Your task to perform on an android device: Search for the best rated headphones on amazon.com Image 0: 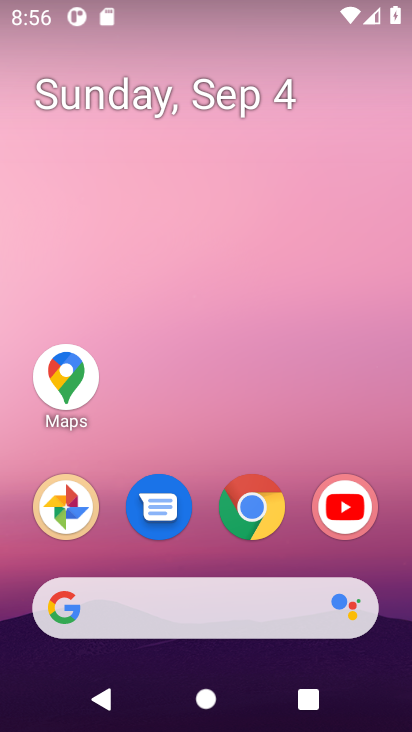
Step 0: click (252, 508)
Your task to perform on an android device: Search for the best rated headphones on amazon.com Image 1: 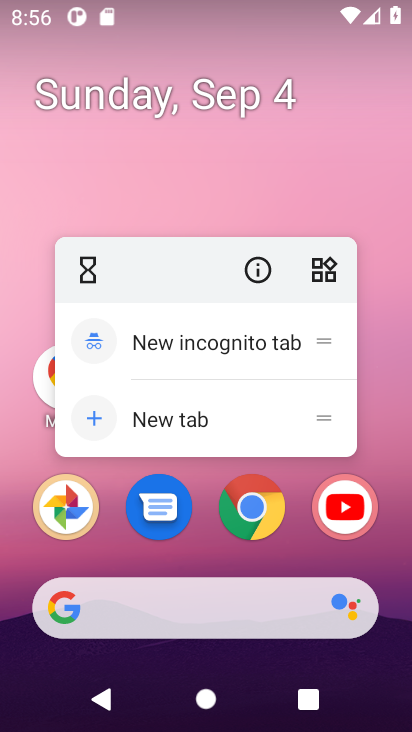
Step 1: click (248, 512)
Your task to perform on an android device: Search for the best rated headphones on amazon.com Image 2: 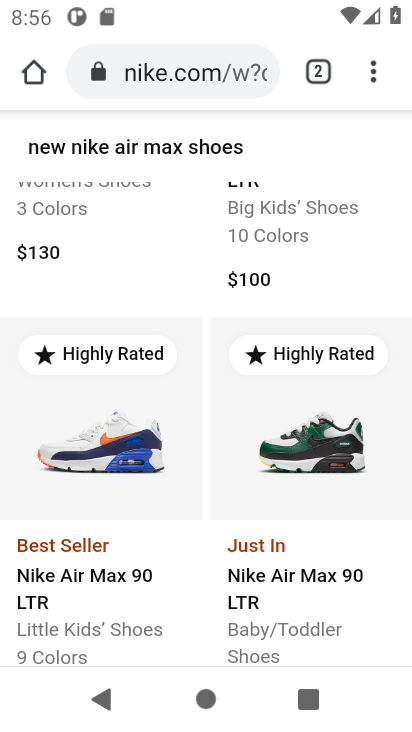
Step 2: click (194, 55)
Your task to perform on an android device: Search for the best rated headphones on amazon.com Image 3: 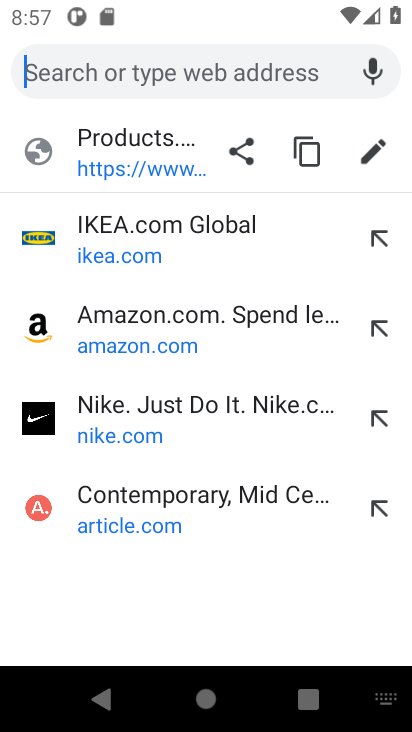
Step 3: type " amazon.com"
Your task to perform on an android device: Search for the best rated headphones on amazon.com Image 4: 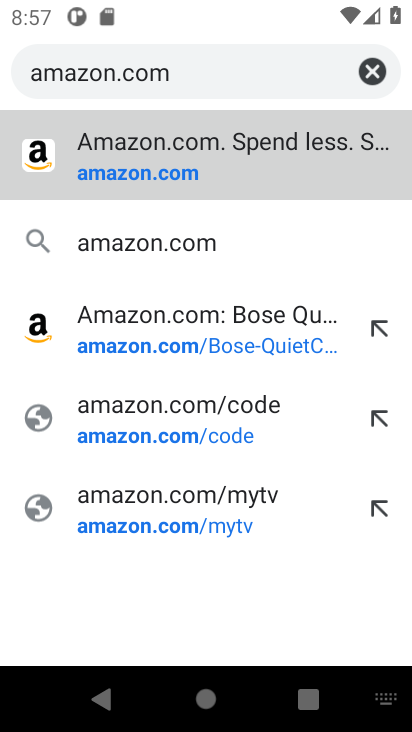
Step 4: click (114, 147)
Your task to perform on an android device: Search for the best rated headphones on amazon.com Image 5: 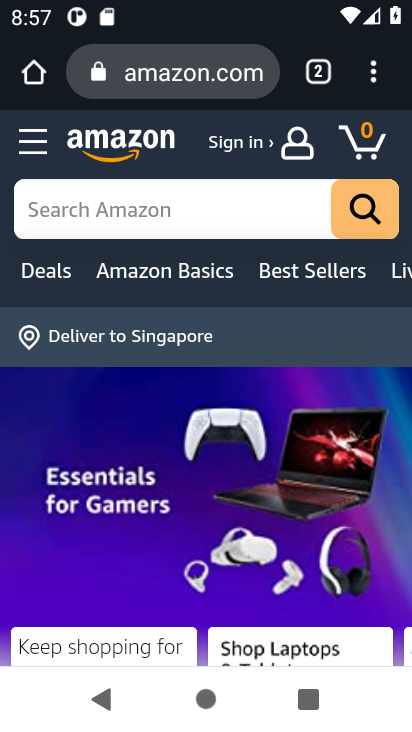
Step 5: click (108, 201)
Your task to perform on an android device: Search for the best rated headphones on amazon.com Image 6: 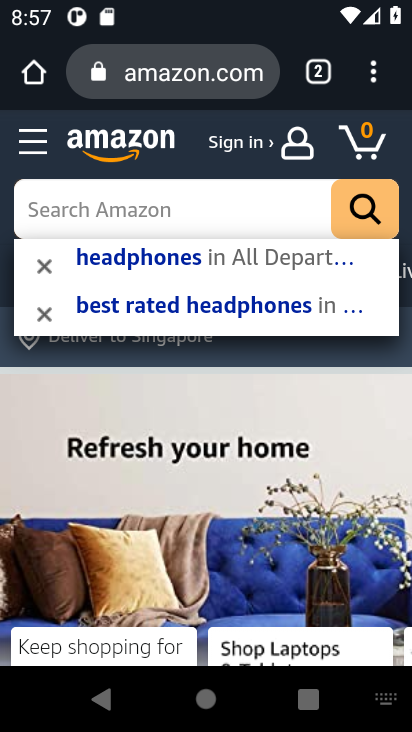
Step 6: type " best rated headphones"
Your task to perform on an android device: Search for the best rated headphones on amazon.com Image 7: 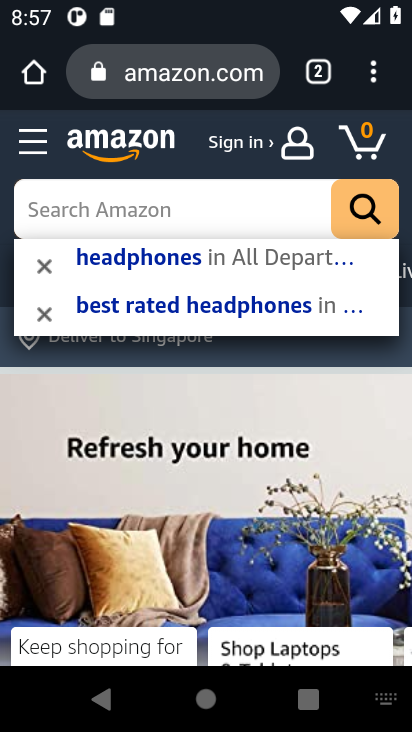
Step 7: click (367, 202)
Your task to perform on an android device: Search for the best rated headphones on amazon.com Image 8: 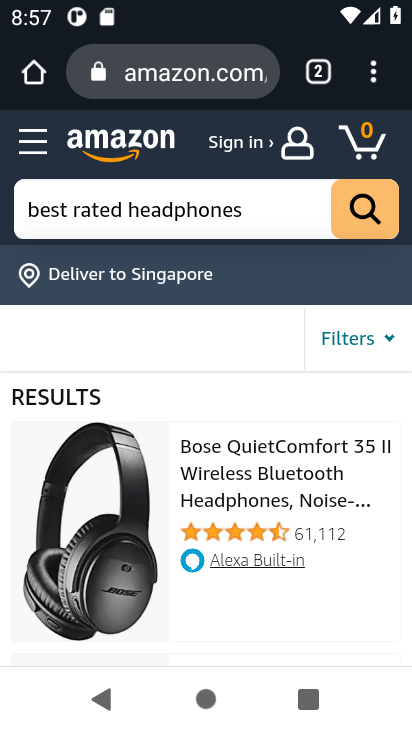
Step 8: drag from (166, 535) to (178, 298)
Your task to perform on an android device: Search for the best rated headphones on amazon.com Image 9: 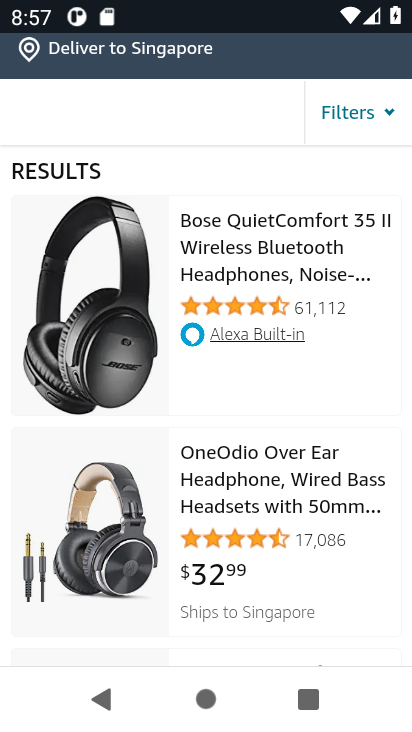
Step 9: drag from (168, 597) to (174, 311)
Your task to perform on an android device: Search for the best rated headphones on amazon.com Image 10: 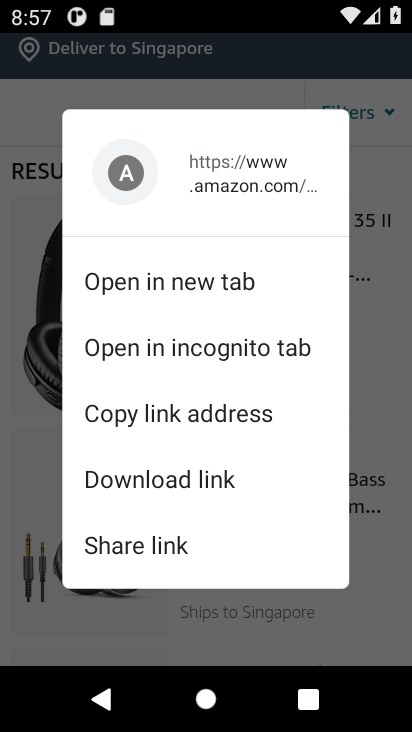
Step 10: click (404, 420)
Your task to perform on an android device: Search for the best rated headphones on amazon.com Image 11: 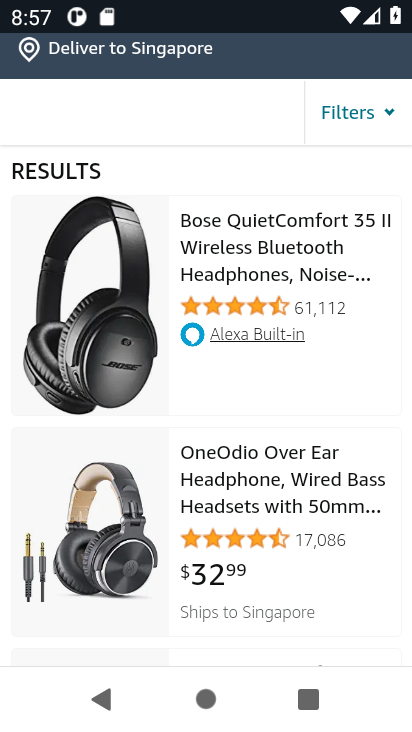
Step 11: task complete